Your task to perform on an android device: check storage Image 0: 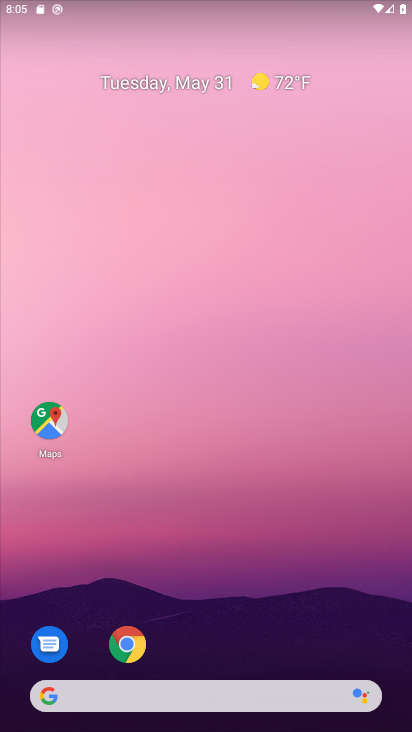
Step 0: press home button
Your task to perform on an android device: check storage Image 1: 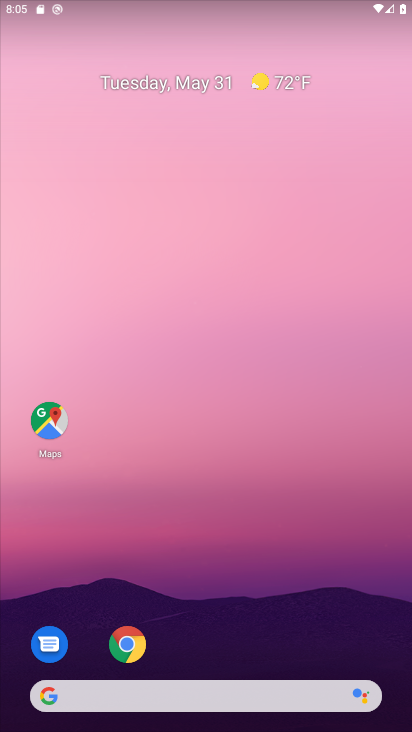
Step 1: drag from (204, 662) to (210, 145)
Your task to perform on an android device: check storage Image 2: 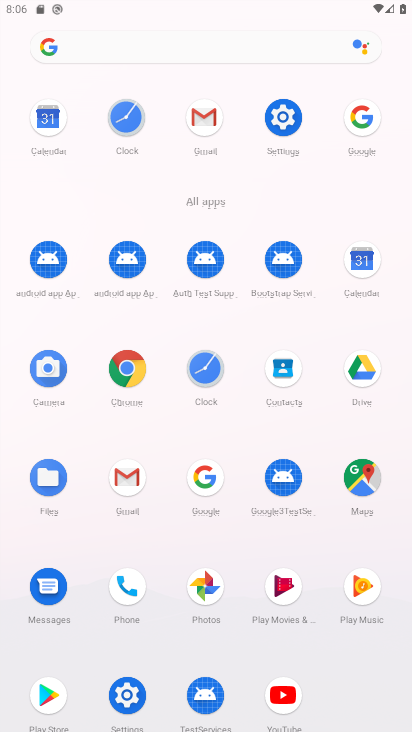
Step 2: click (285, 114)
Your task to perform on an android device: check storage Image 3: 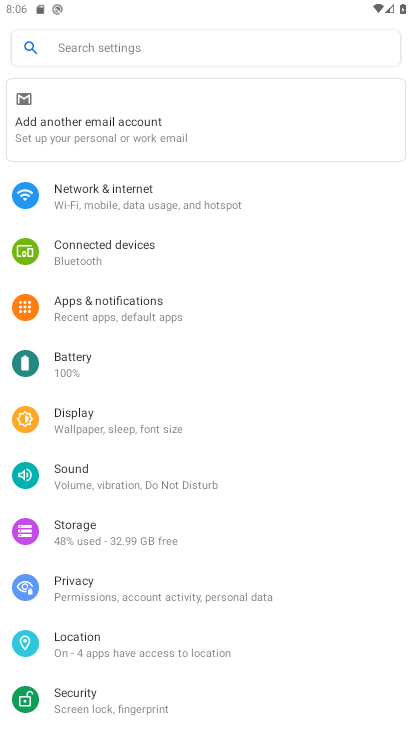
Step 3: click (107, 530)
Your task to perform on an android device: check storage Image 4: 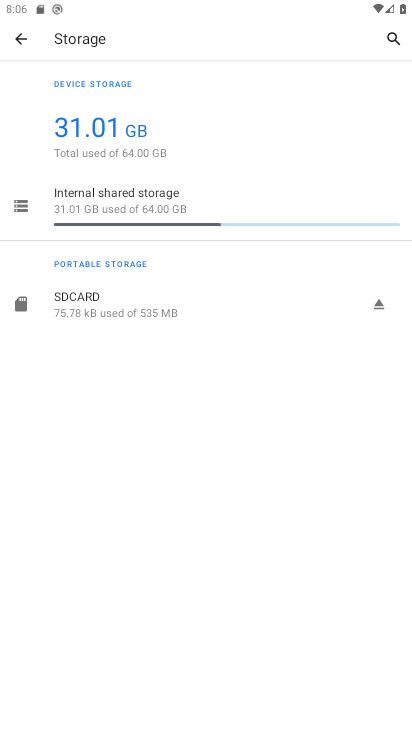
Step 4: task complete